Your task to perform on an android device: Show me the alarms in the clock app Image 0: 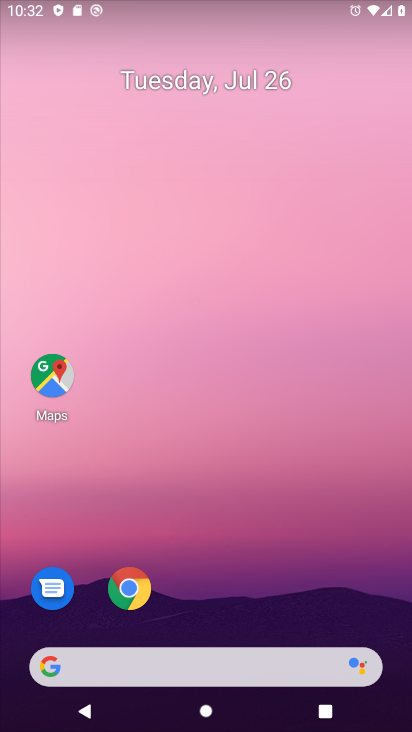
Step 0: drag from (228, 577) to (337, 12)
Your task to perform on an android device: Show me the alarms in the clock app Image 1: 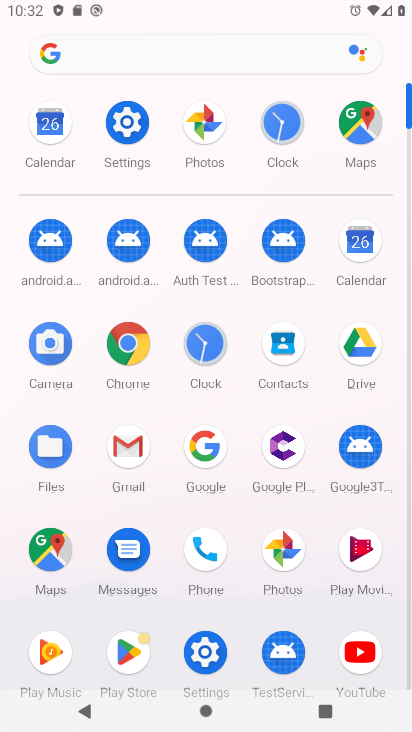
Step 1: click (203, 351)
Your task to perform on an android device: Show me the alarms in the clock app Image 2: 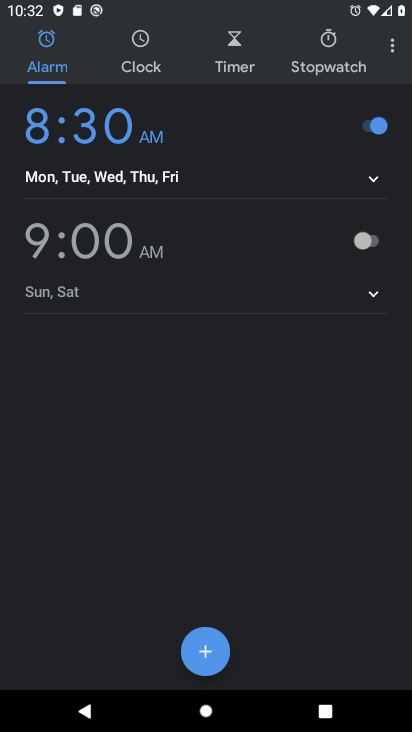
Step 2: task complete